Your task to perform on an android device: What is the news today? Image 0: 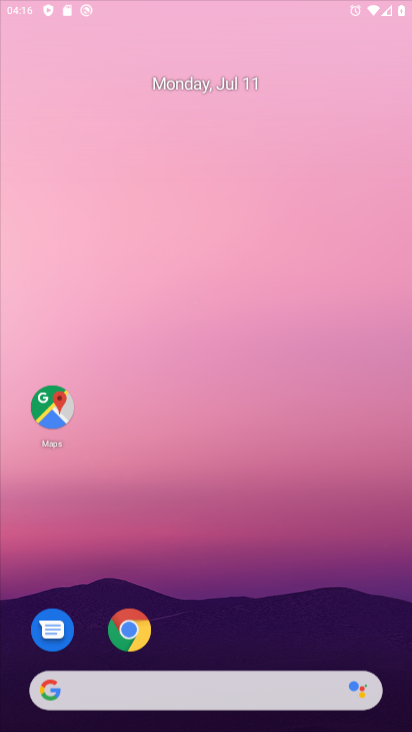
Step 0: press home button
Your task to perform on an android device: What is the news today? Image 1: 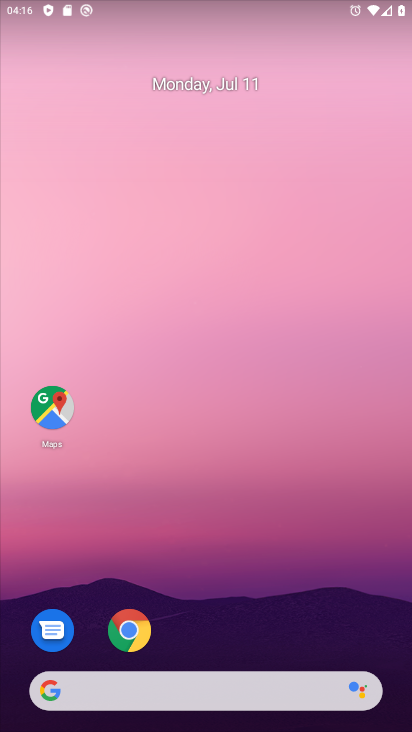
Step 1: drag from (233, 644) to (270, 77)
Your task to perform on an android device: What is the news today? Image 2: 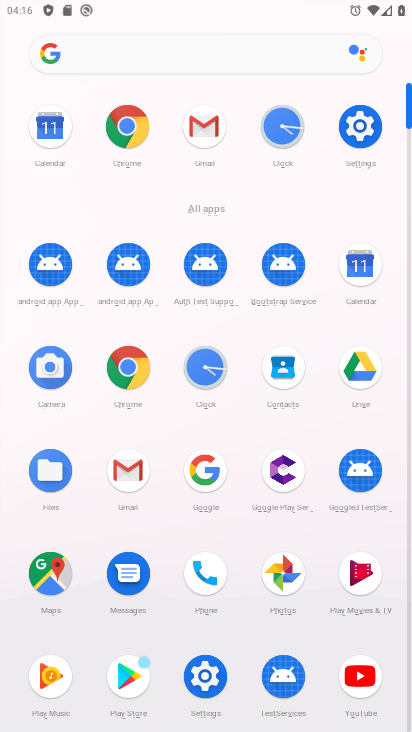
Step 2: press home button
Your task to perform on an android device: What is the news today? Image 3: 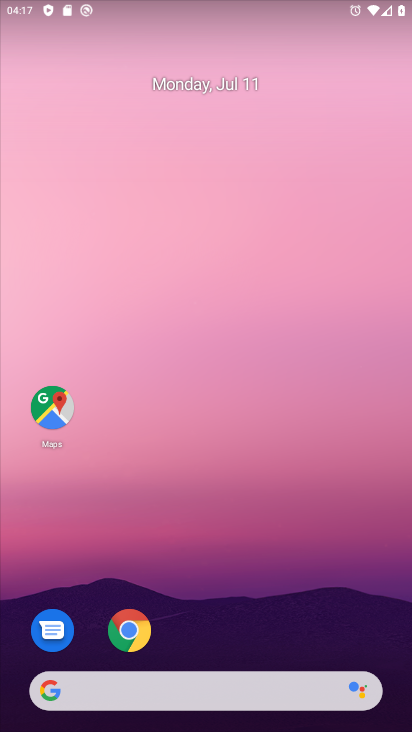
Step 3: drag from (8, 314) to (409, 364)
Your task to perform on an android device: What is the news today? Image 4: 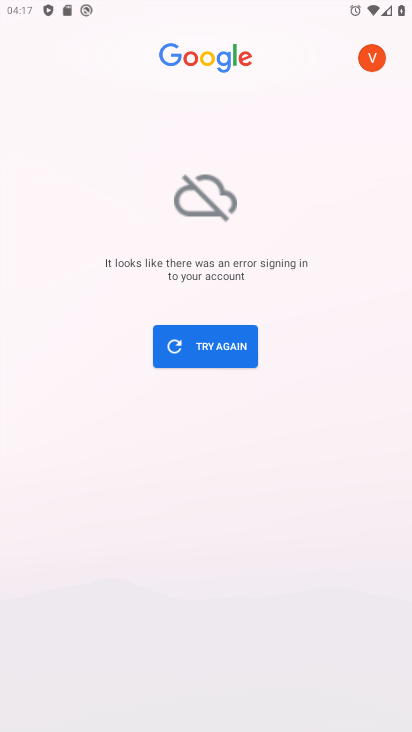
Step 4: click (200, 350)
Your task to perform on an android device: What is the news today? Image 5: 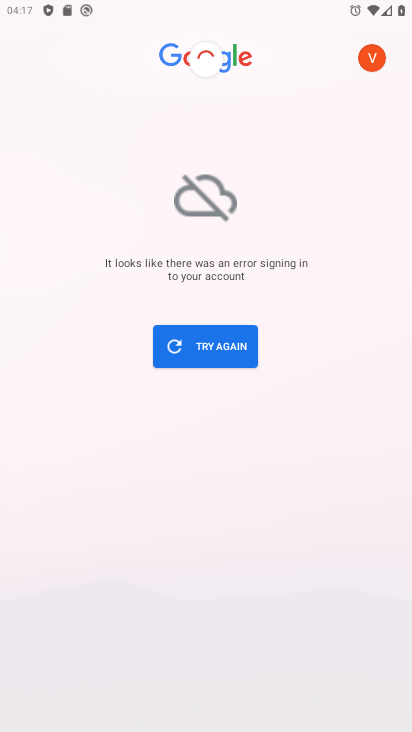
Step 5: click (161, 349)
Your task to perform on an android device: What is the news today? Image 6: 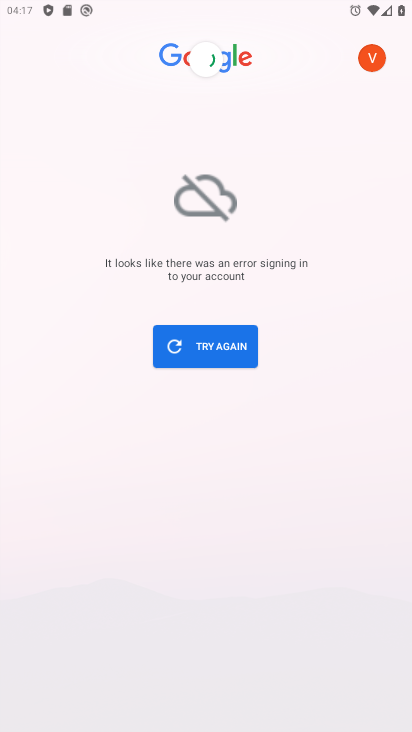
Step 6: task complete